Your task to perform on an android device: View the shopping cart on amazon. Add "razer blade" to the cart on amazon, then select checkout. Image 0: 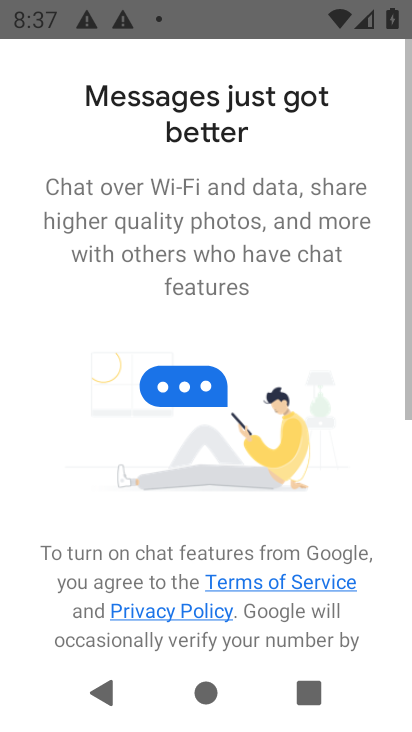
Step 0: press home button
Your task to perform on an android device: View the shopping cart on amazon. Add "razer blade" to the cart on amazon, then select checkout. Image 1: 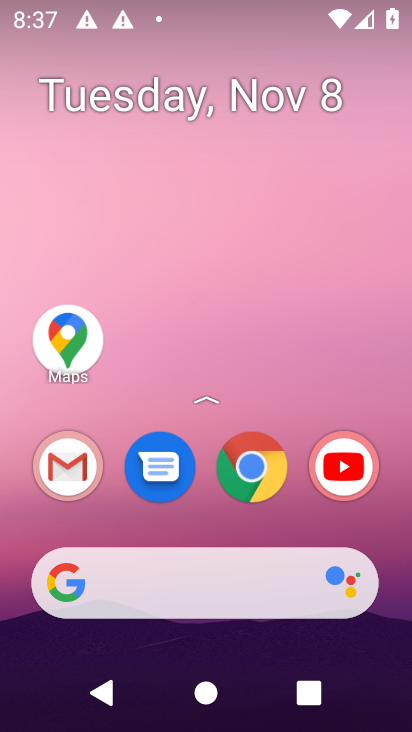
Step 1: click (264, 575)
Your task to perform on an android device: View the shopping cart on amazon. Add "razer blade" to the cart on amazon, then select checkout. Image 2: 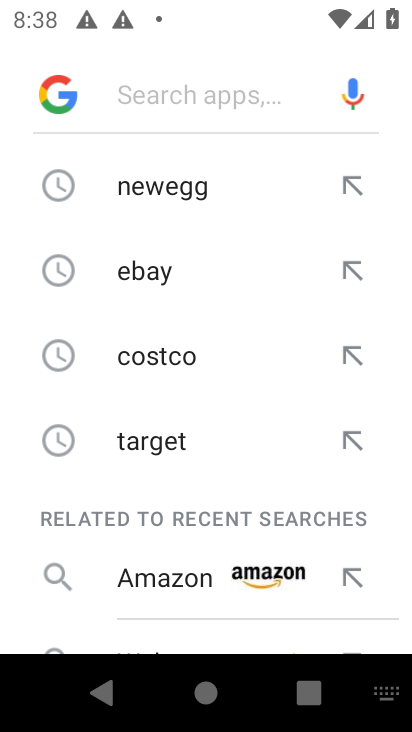
Step 2: type "razer blade"
Your task to perform on an android device: View the shopping cart on amazon. Add "razer blade" to the cart on amazon, then select checkout. Image 3: 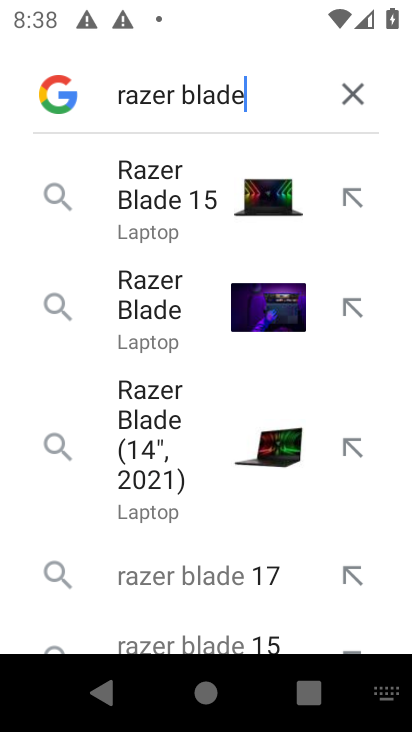
Step 3: click (167, 214)
Your task to perform on an android device: View the shopping cart on amazon. Add "razer blade" to the cart on amazon, then select checkout. Image 4: 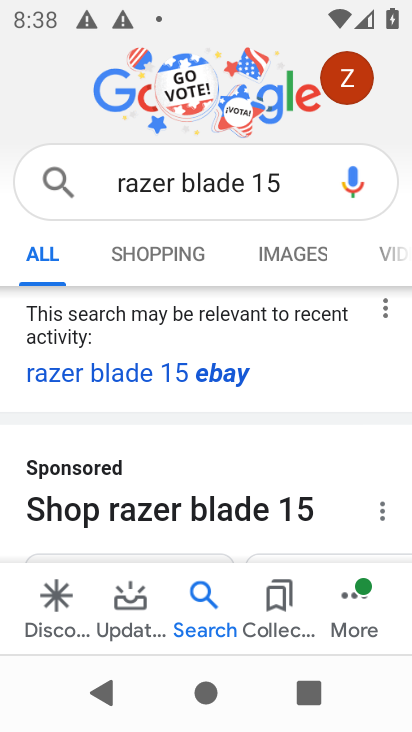
Step 4: task complete